Your task to perform on an android device: turn on notifications settings in the gmail app Image 0: 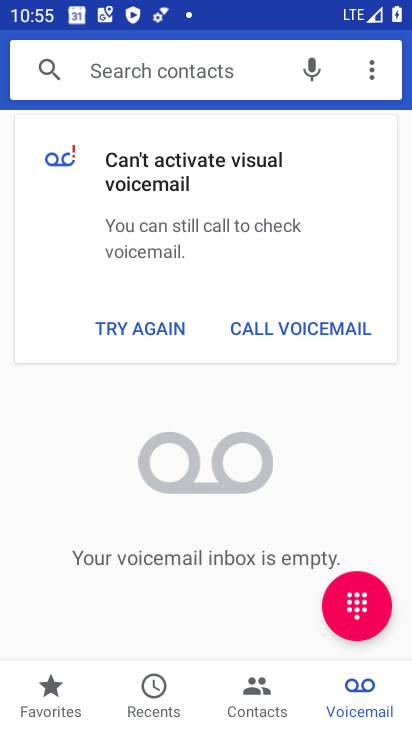
Step 0: press home button
Your task to perform on an android device: turn on notifications settings in the gmail app Image 1: 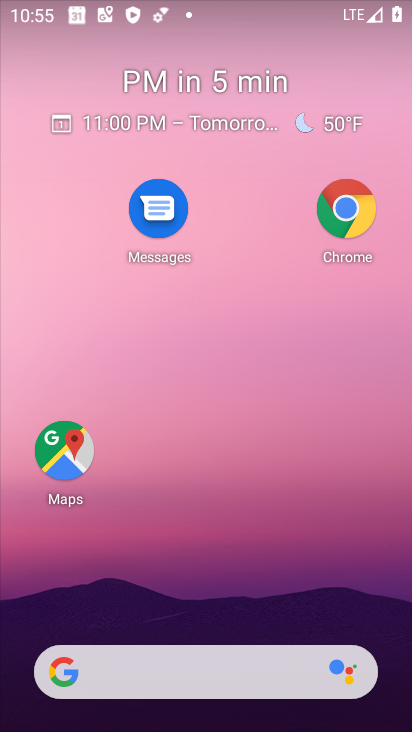
Step 1: drag from (228, 624) to (243, 39)
Your task to perform on an android device: turn on notifications settings in the gmail app Image 2: 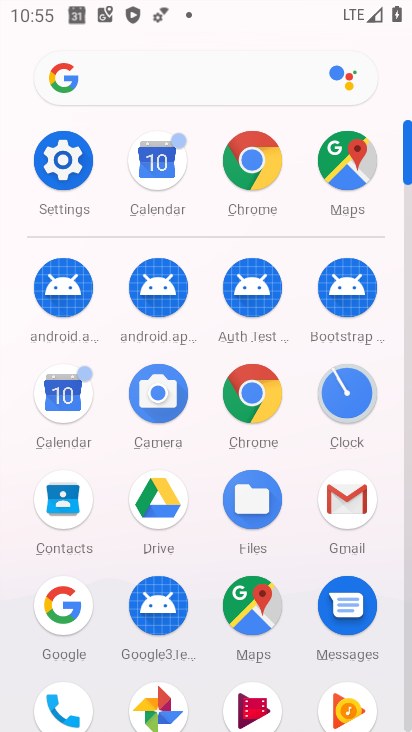
Step 2: click (340, 501)
Your task to perform on an android device: turn on notifications settings in the gmail app Image 3: 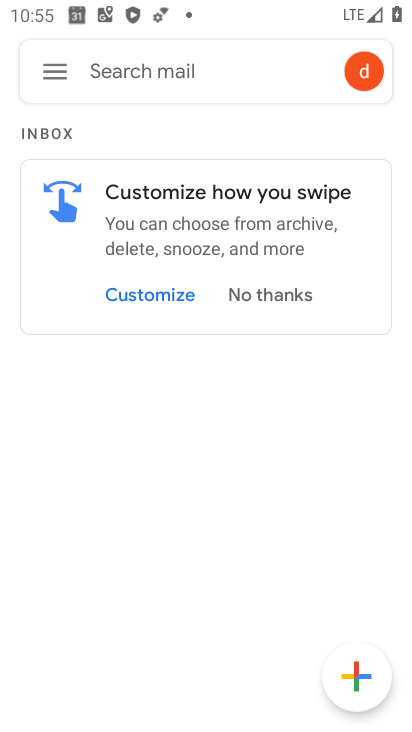
Step 3: click (51, 74)
Your task to perform on an android device: turn on notifications settings in the gmail app Image 4: 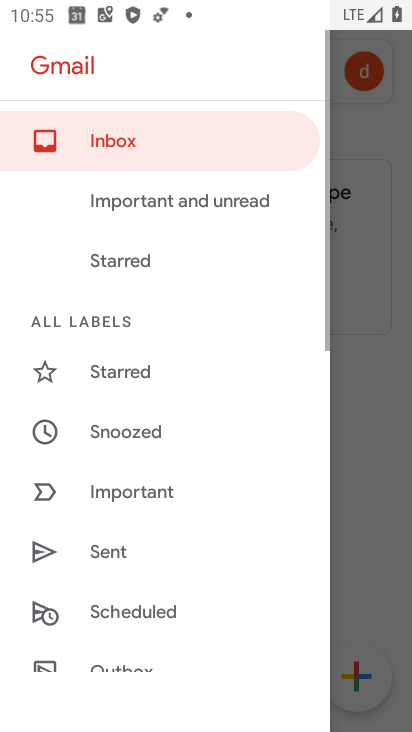
Step 4: drag from (128, 585) to (47, 15)
Your task to perform on an android device: turn on notifications settings in the gmail app Image 5: 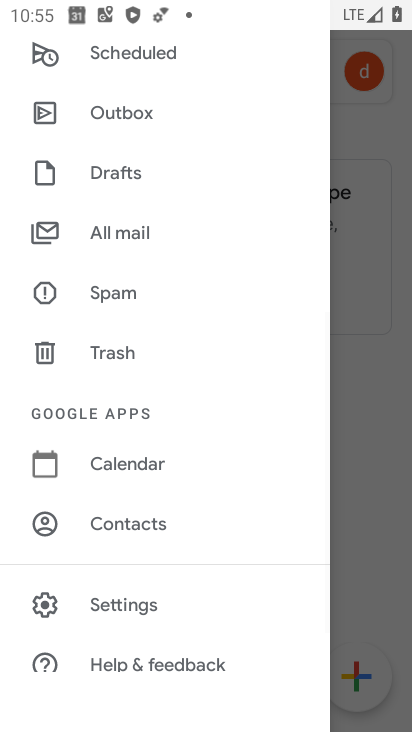
Step 5: click (56, 590)
Your task to perform on an android device: turn on notifications settings in the gmail app Image 6: 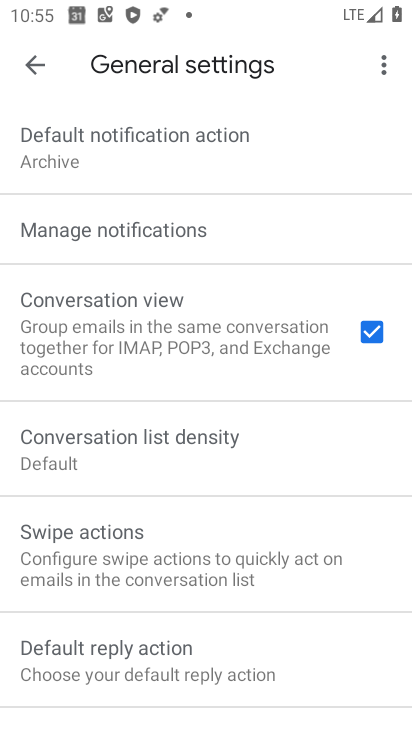
Step 6: click (91, 229)
Your task to perform on an android device: turn on notifications settings in the gmail app Image 7: 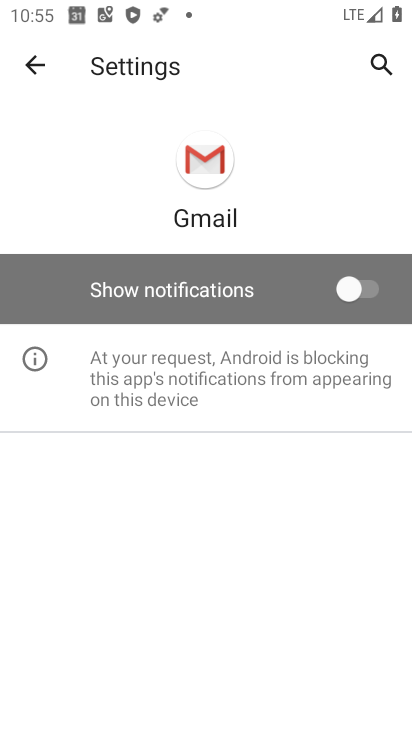
Step 7: click (346, 304)
Your task to perform on an android device: turn on notifications settings in the gmail app Image 8: 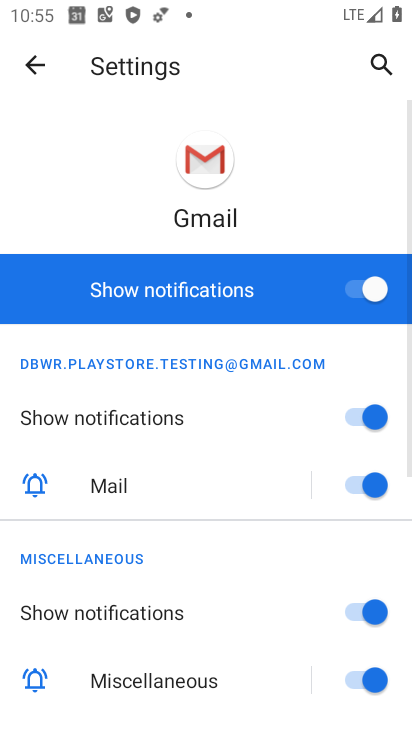
Step 8: task complete